Your task to perform on an android device: turn on the 12-hour format for clock Image 0: 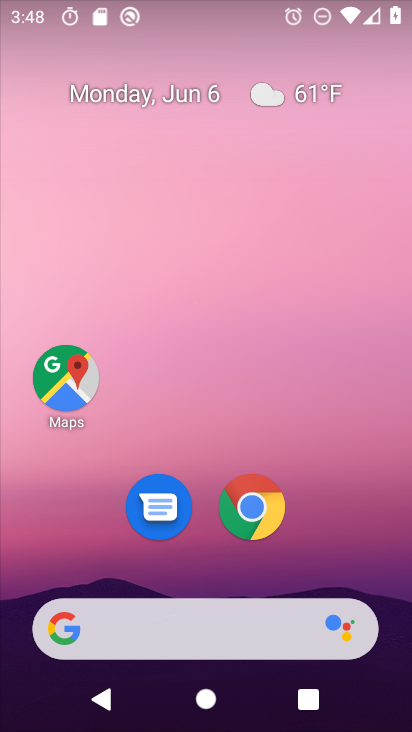
Step 0: drag from (199, 556) to (197, 238)
Your task to perform on an android device: turn on the 12-hour format for clock Image 1: 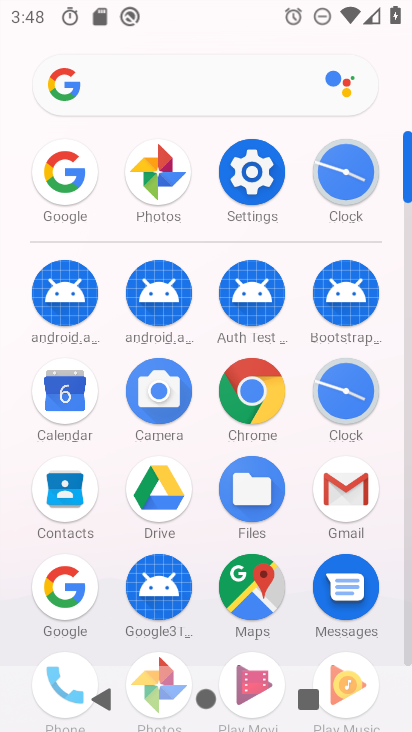
Step 1: click (249, 249)
Your task to perform on an android device: turn on the 12-hour format for clock Image 2: 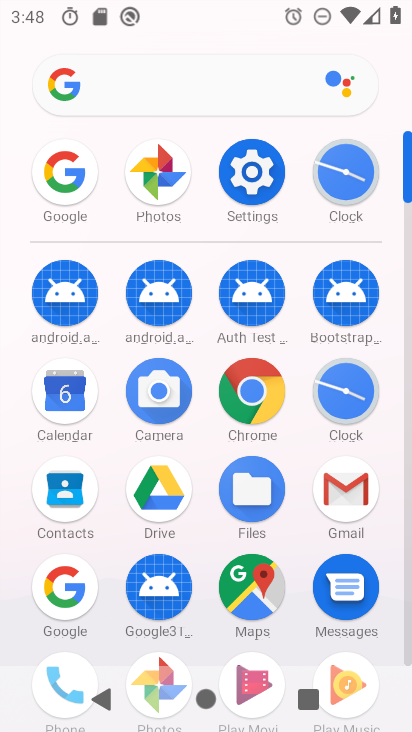
Step 2: click (249, 192)
Your task to perform on an android device: turn on the 12-hour format for clock Image 3: 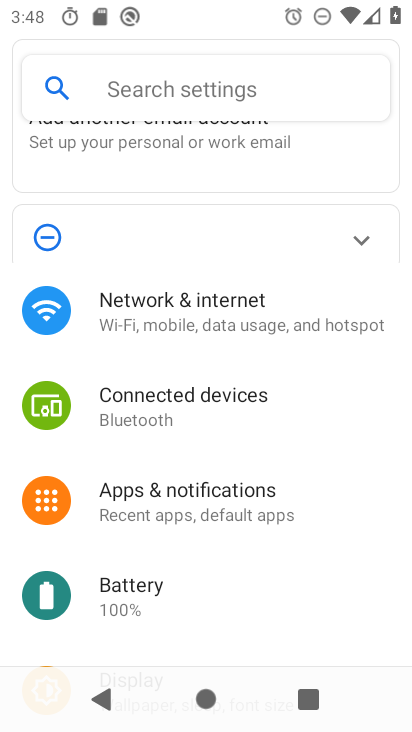
Step 3: press home button
Your task to perform on an android device: turn on the 12-hour format for clock Image 4: 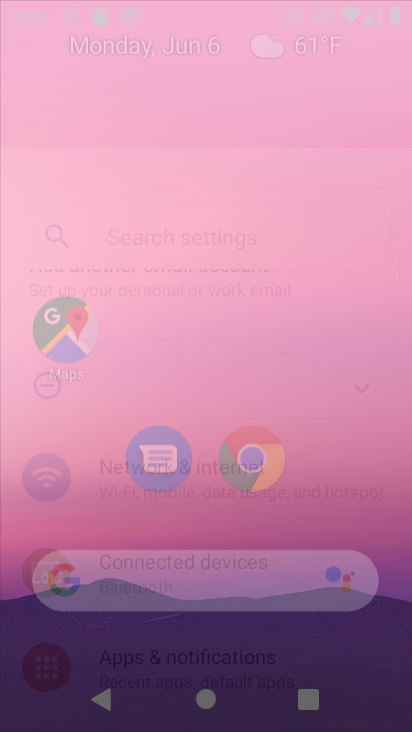
Step 4: press home button
Your task to perform on an android device: turn on the 12-hour format for clock Image 5: 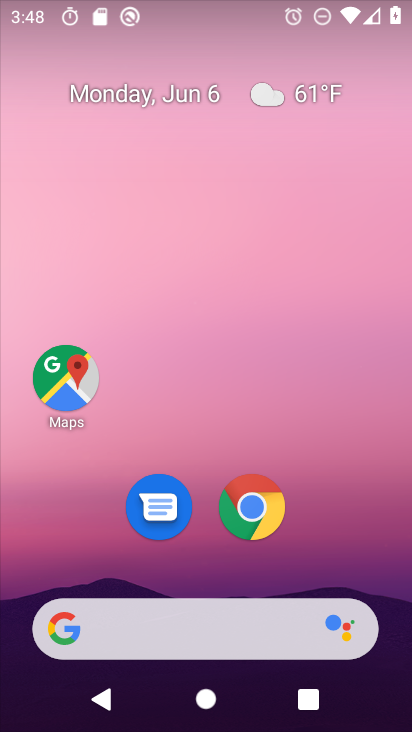
Step 5: drag from (198, 576) to (216, 175)
Your task to perform on an android device: turn on the 12-hour format for clock Image 6: 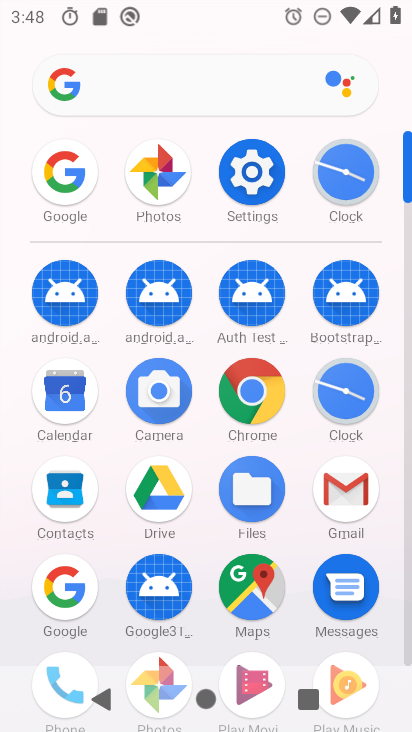
Step 6: click (356, 192)
Your task to perform on an android device: turn on the 12-hour format for clock Image 7: 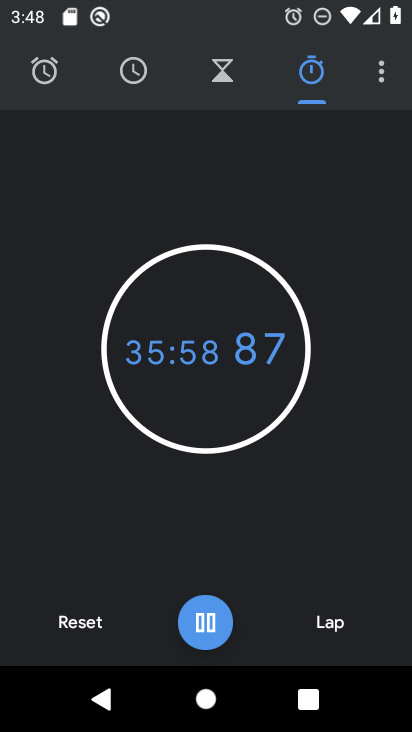
Step 7: click (369, 67)
Your task to perform on an android device: turn on the 12-hour format for clock Image 8: 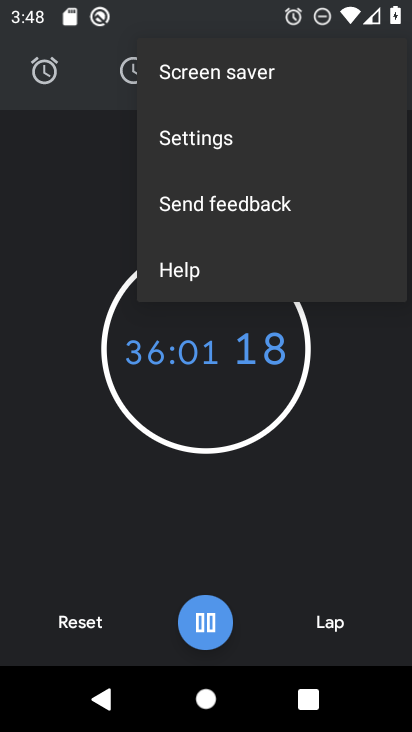
Step 8: click (242, 138)
Your task to perform on an android device: turn on the 12-hour format for clock Image 9: 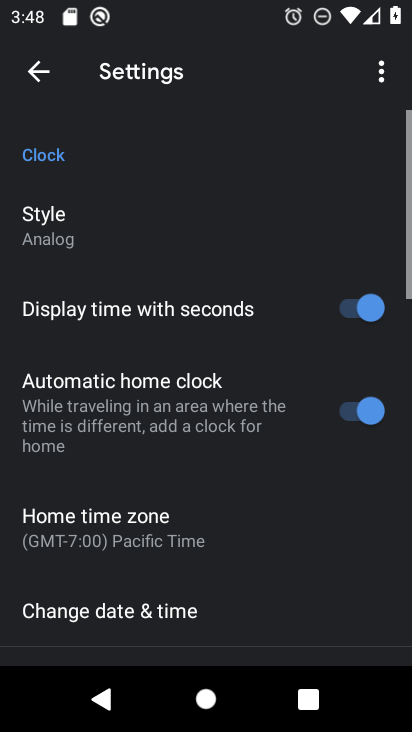
Step 9: drag from (210, 481) to (221, 152)
Your task to perform on an android device: turn on the 12-hour format for clock Image 10: 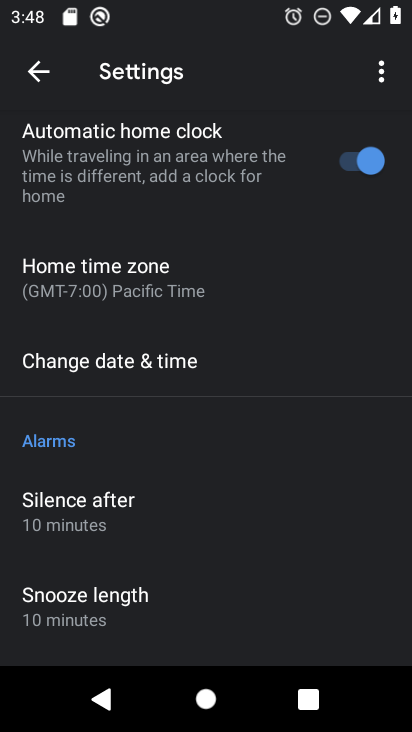
Step 10: drag from (167, 551) to (189, 383)
Your task to perform on an android device: turn on the 12-hour format for clock Image 11: 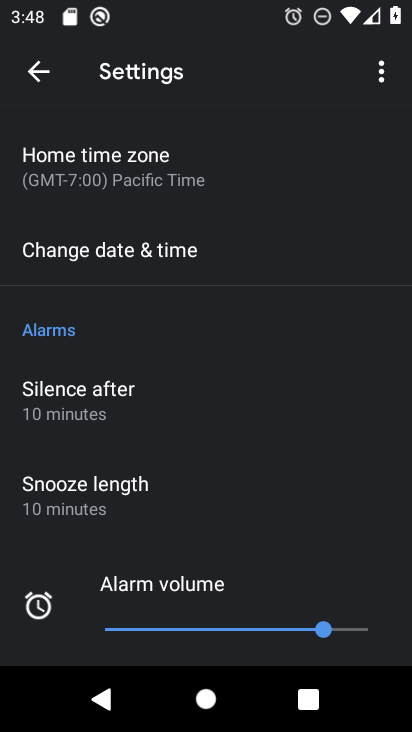
Step 11: click (168, 260)
Your task to perform on an android device: turn on the 12-hour format for clock Image 12: 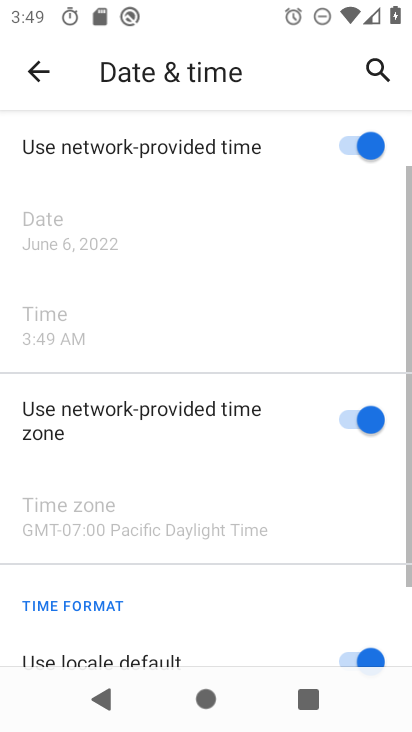
Step 12: task complete